Your task to perform on an android device: Search for the top rated book on goodreads. Image 0: 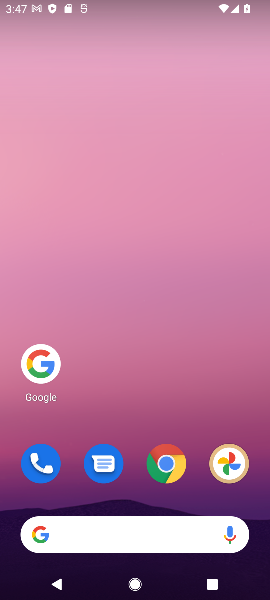
Step 0: click (43, 357)
Your task to perform on an android device: Search for the top rated book on goodreads. Image 1: 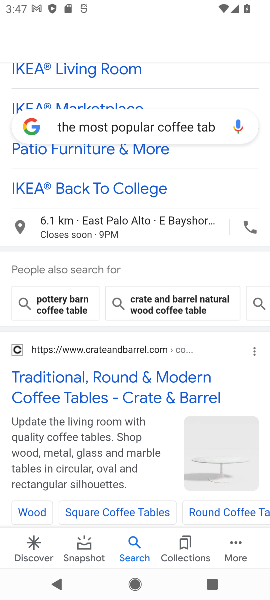
Step 1: click (152, 121)
Your task to perform on an android device: Search for the top rated book on goodreads. Image 2: 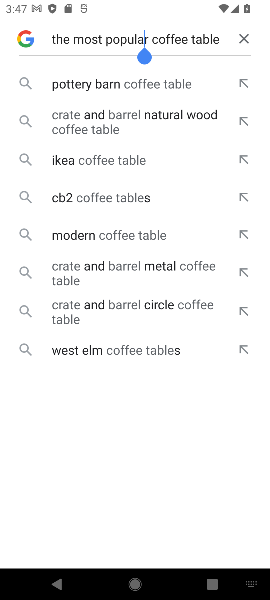
Step 2: click (246, 37)
Your task to perform on an android device: Search for the top rated book on goodreads. Image 3: 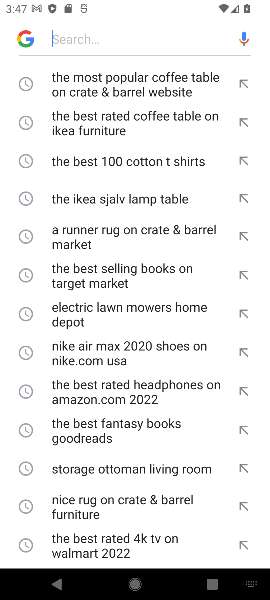
Step 3: click (80, 34)
Your task to perform on an android device: Search for the top rated book on goodreads. Image 4: 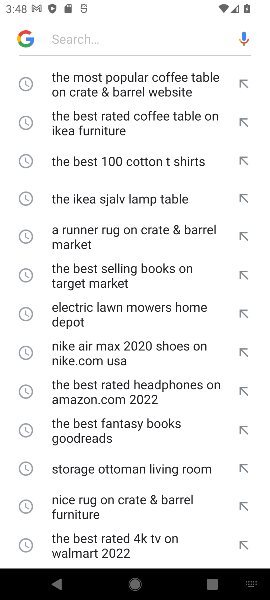
Step 4: type " the top rated book on goodreads "
Your task to perform on an android device: Search for the top rated book on goodreads. Image 5: 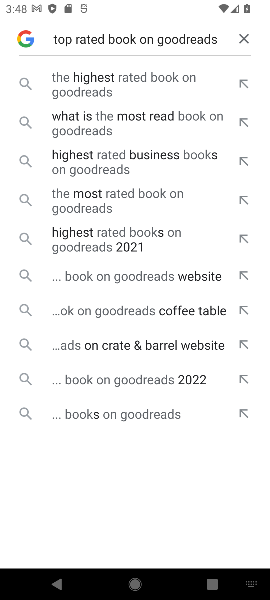
Step 5: click (100, 80)
Your task to perform on an android device: Search for the top rated book on goodreads. Image 6: 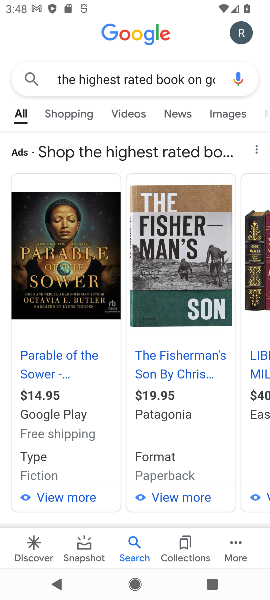
Step 6: drag from (86, 450) to (121, 165)
Your task to perform on an android device: Search for the top rated book on goodreads. Image 7: 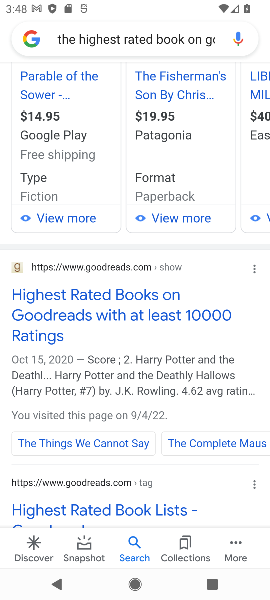
Step 7: click (97, 311)
Your task to perform on an android device: Search for the top rated book on goodreads. Image 8: 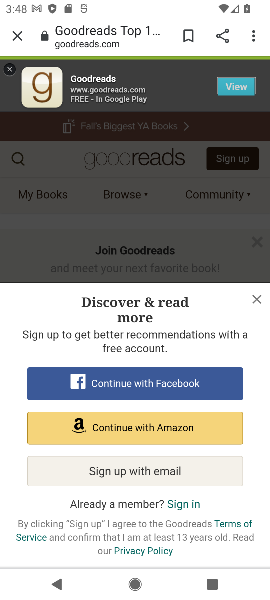
Step 8: click (256, 293)
Your task to perform on an android device: Search for the top rated book on goodreads. Image 9: 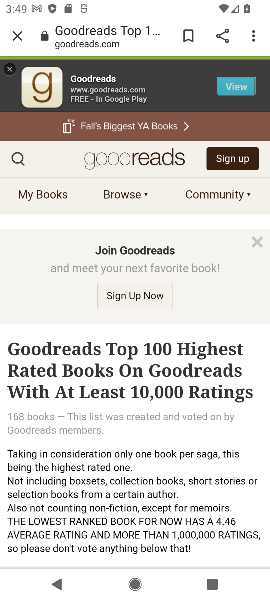
Step 9: click (258, 243)
Your task to perform on an android device: Search for the top rated book on goodreads. Image 10: 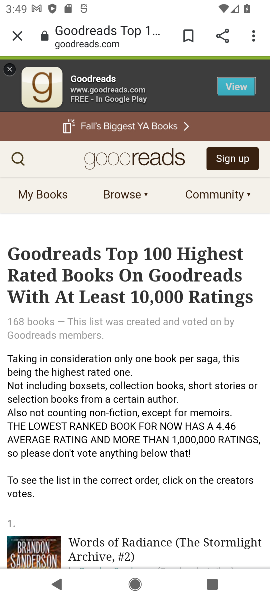
Step 10: task complete